Your task to perform on an android device: Search for Italian restaurants on Maps Image 0: 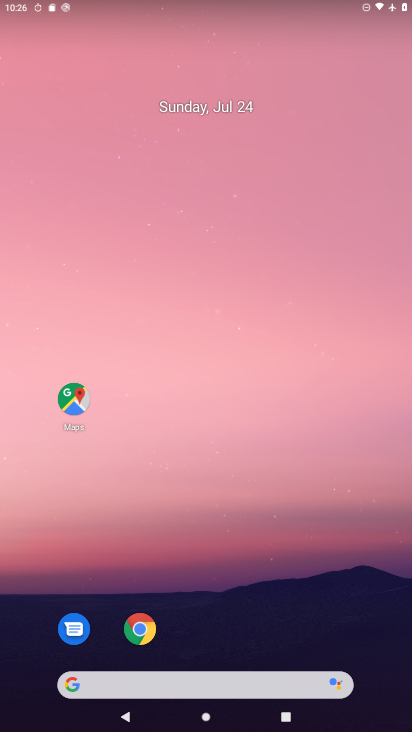
Step 0: drag from (209, 663) to (326, 102)
Your task to perform on an android device: Search for Italian restaurants on Maps Image 1: 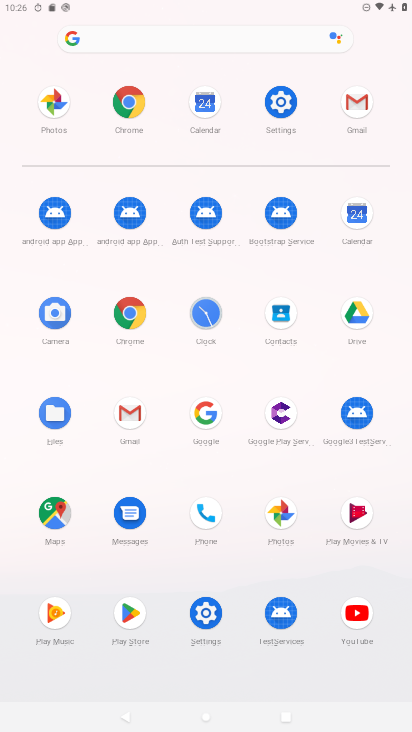
Step 1: click (63, 526)
Your task to perform on an android device: Search for Italian restaurants on Maps Image 2: 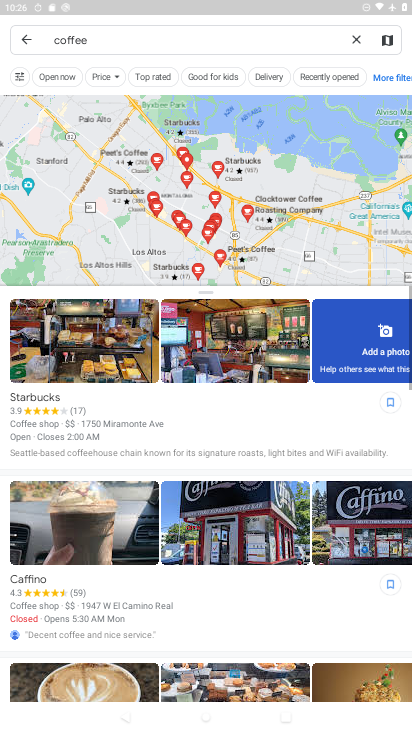
Step 2: click (359, 41)
Your task to perform on an android device: Search for Italian restaurants on Maps Image 3: 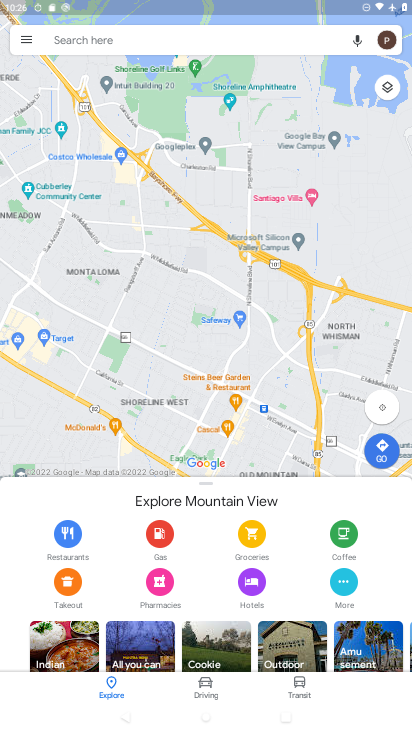
Step 3: click (211, 42)
Your task to perform on an android device: Search for Italian restaurants on Maps Image 4: 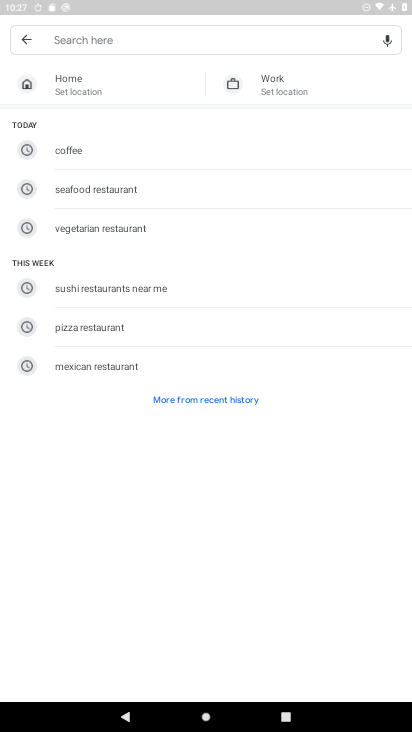
Step 4: type "italian"
Your task to perform on an android device: Search for Italian restaurants on Maps Image 5: 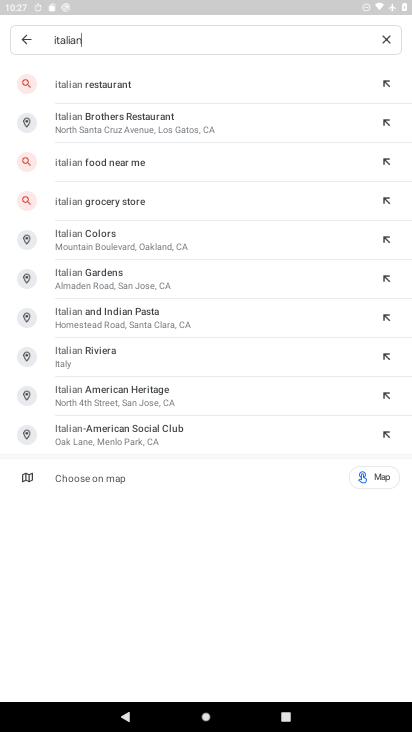
Step 5: click (127, 85)
Your task to perform on an android device: Search for Italian restaurants on Maps Image 6: 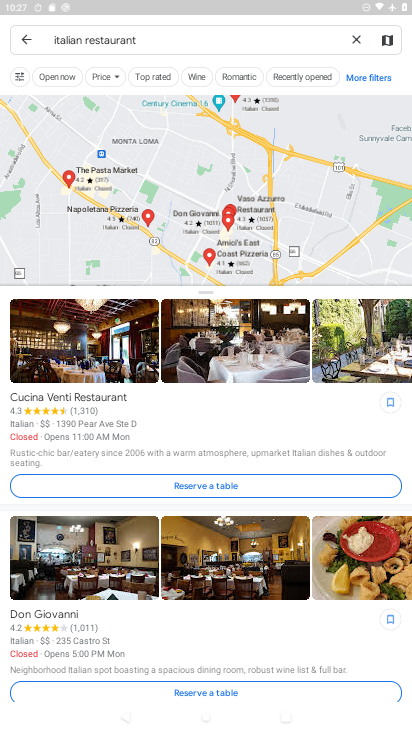
Step 6: task complete